Your task to perform on an android device: snooze an email in the gmail app Image 0: 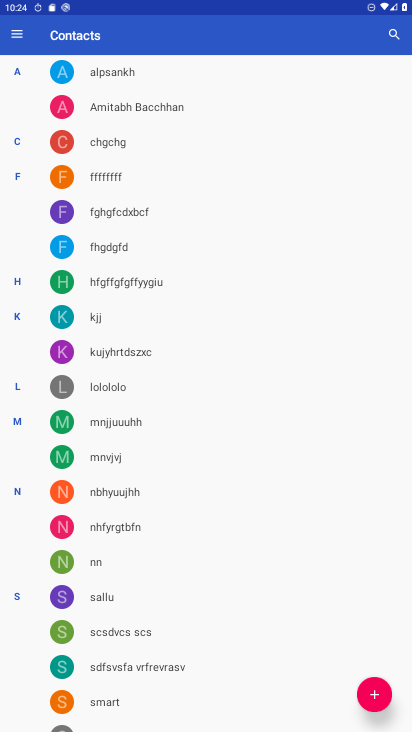
Step 0: press home button
Your task to perform on an android device: snooze an email in the gmail app Image 1: 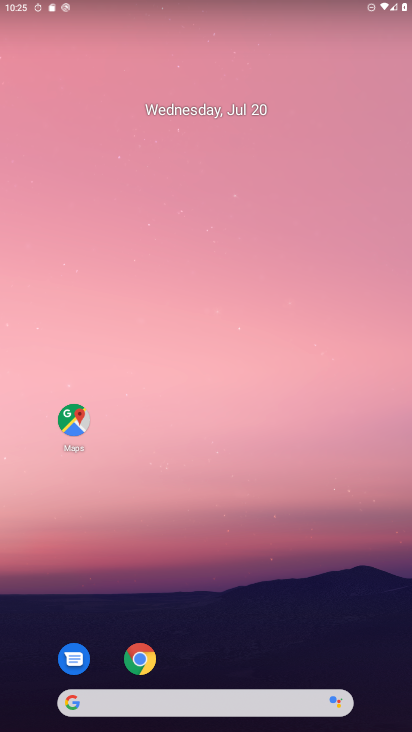
Step 1: drag from (219, 657) to (195, 117)
Your task to perform on an android device: snooze an email in the gmail app Image 2: 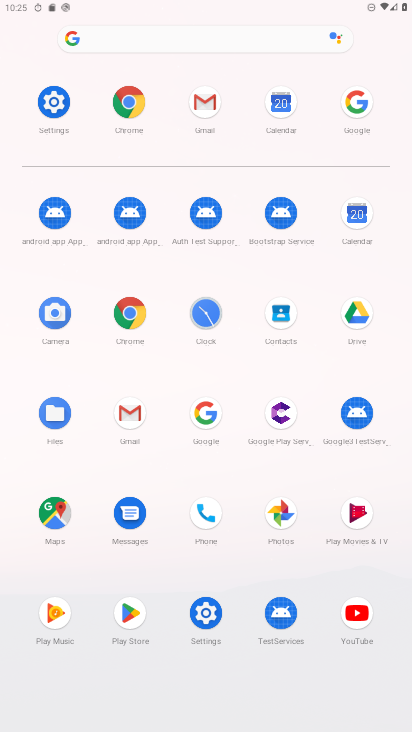
Step 2: click (202, 90)
Your task to perform on an android device: snooze an email in the gmail app Image 3: 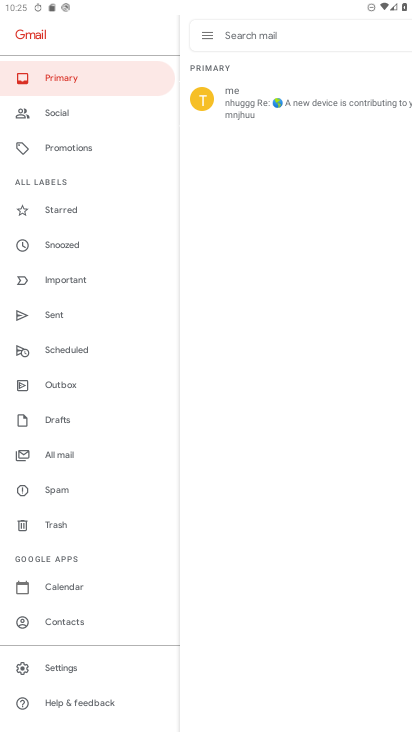
Step 3: click (313, 113)
Your task to perform on an android device: snooze an email in the gmail app Image 4: 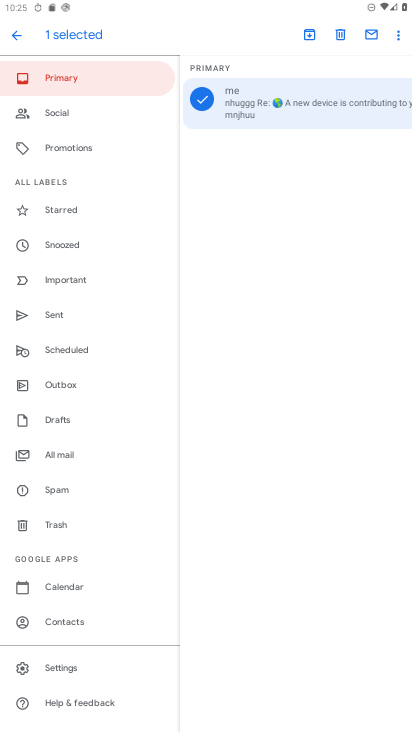
Step 4: click (398, 33)
Your task to perform on an android device: snooze an email in the gmail app Image 5: 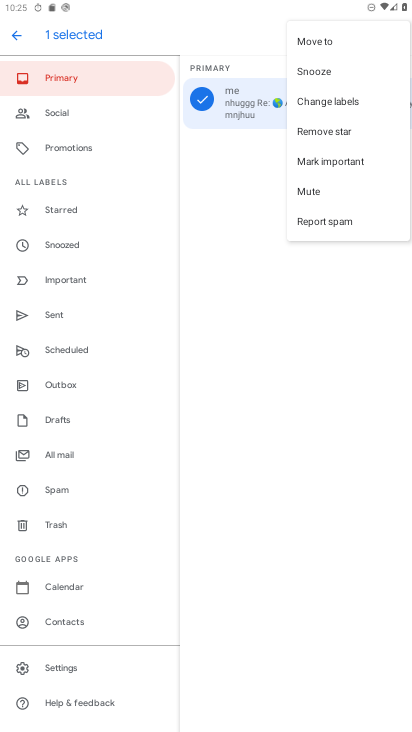
Step 5: click (314, 72)
Your task to perform on an android device: snooze an email in the gmail app Image 6: 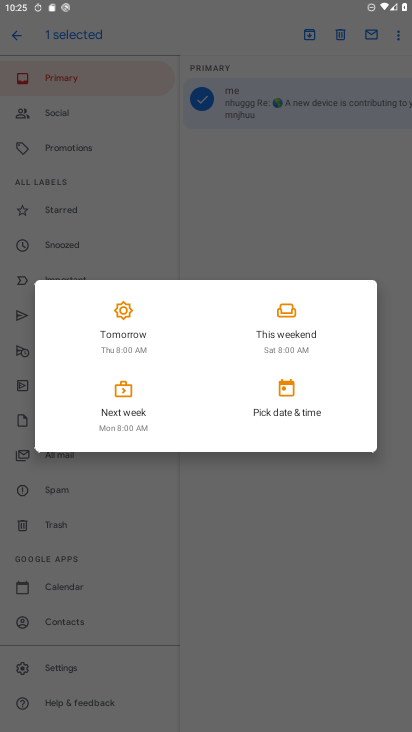
Step 6: click (120, 330)
Your task to perform on an android device: snooze an email in the gmail app Image 7: 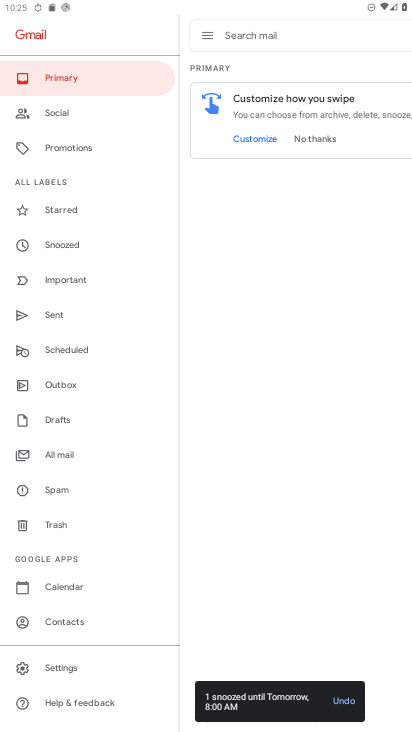
Step 7: task complete